Your task to perform on an android device: Open Chrome and go to settings Image 0: 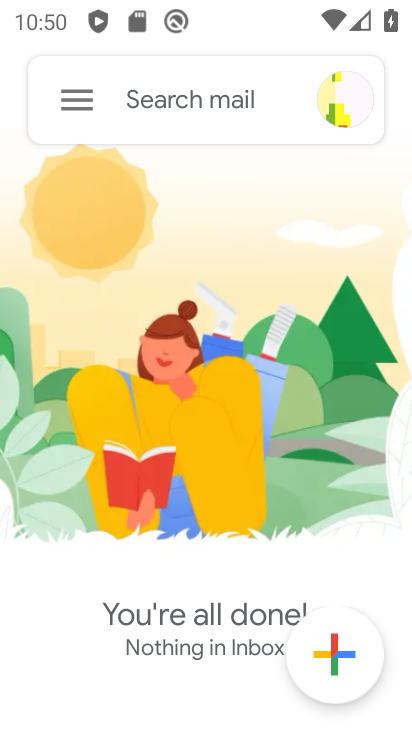
Step 0: press home button
Your task to perform on an android device: Open Chrome and go to settings Image 1: 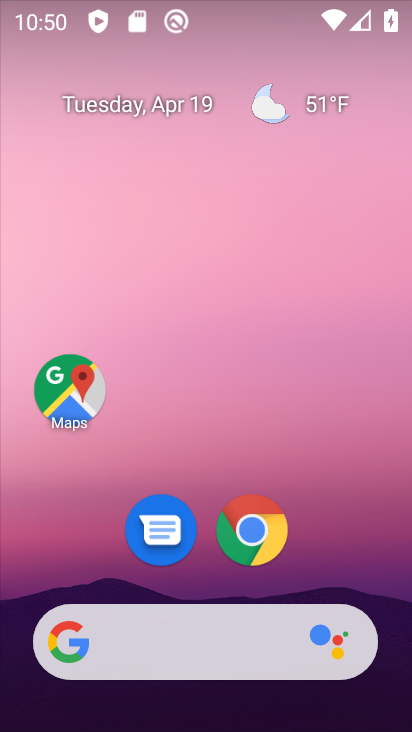
Step 1: click (259, 516)
Your task to perform on an android device: Open Chrome and go to settings Image 2: 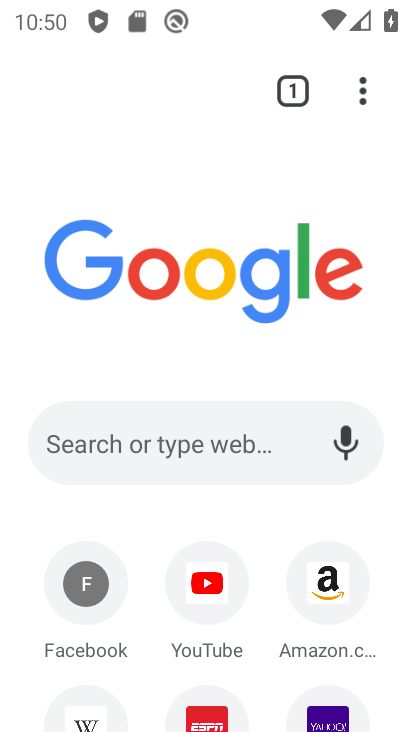
Step 2: click (361, 104)
Your task to perform on an android device: Open Chrome and go to settings Image 3: 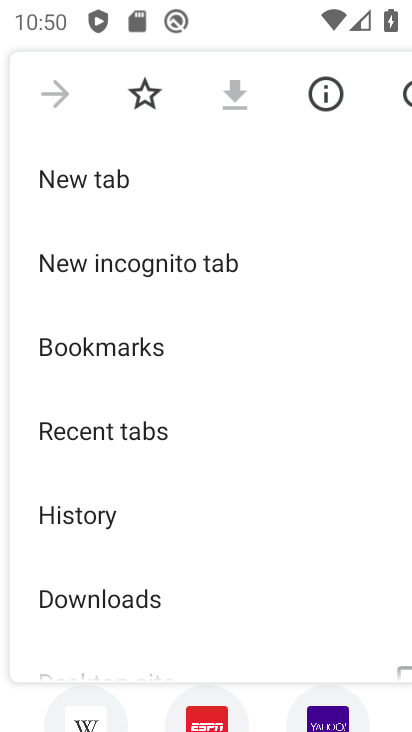
Step 3: drag from (266, 374) to (273, 134)
Your task to perform on an android device: Open Chrome and go to settings Image 4: 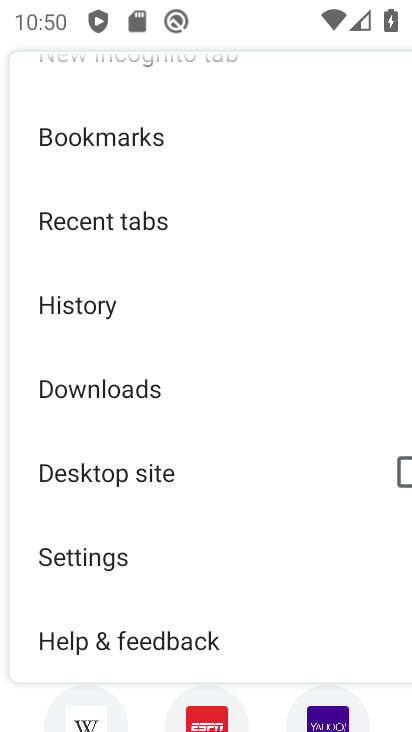
Step 4: click (151, 547)
Your task to perform on an android device: Open Chrome and go to settings Image 5: 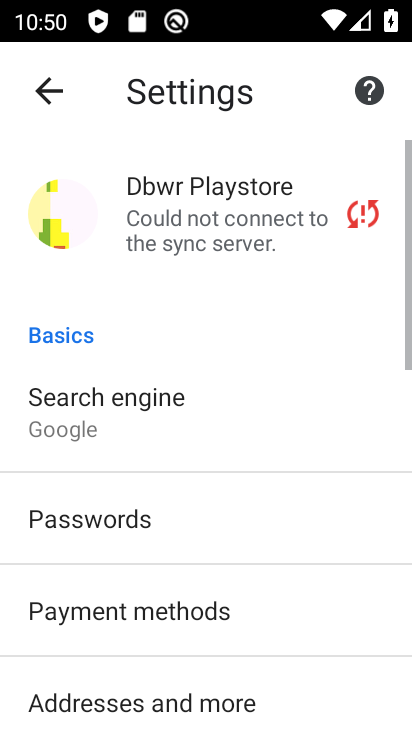
Step 5: task complete